Your task to perform on an android device: open wifi settings Image 0: 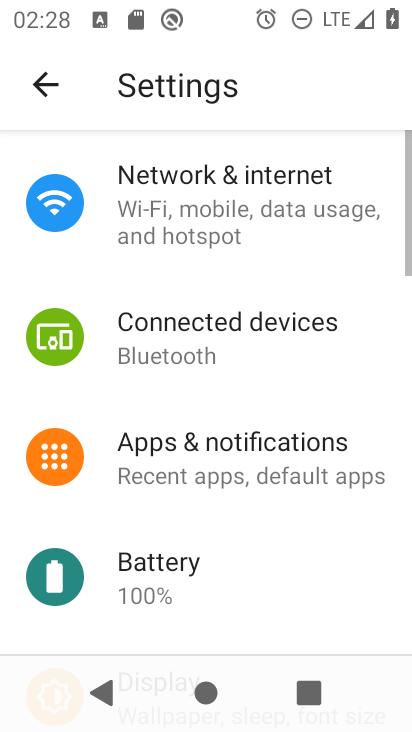
Step 0: click (151, 192)
Your task to perform on an android device: open wifi settings Image 1: 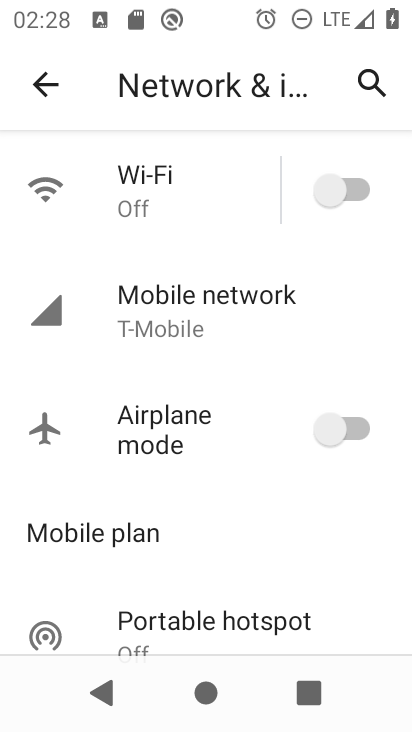
Step 1: click (125, 185)
Your task to perform on an android device: open wifi settings Image 2: 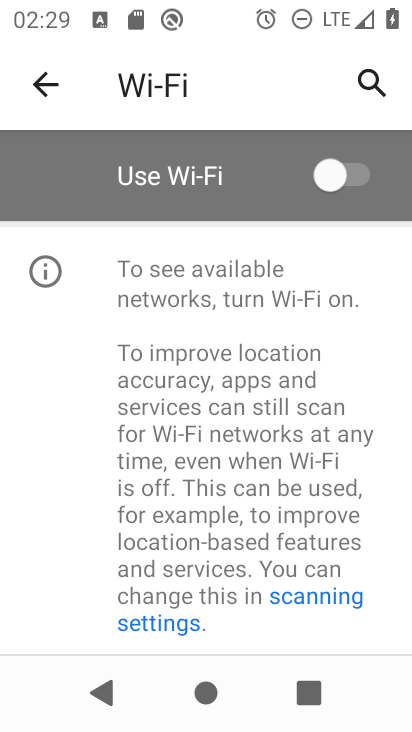
Step 2: click (358, 181)
Your task to perform on an android device: open wifi settings Image 3: 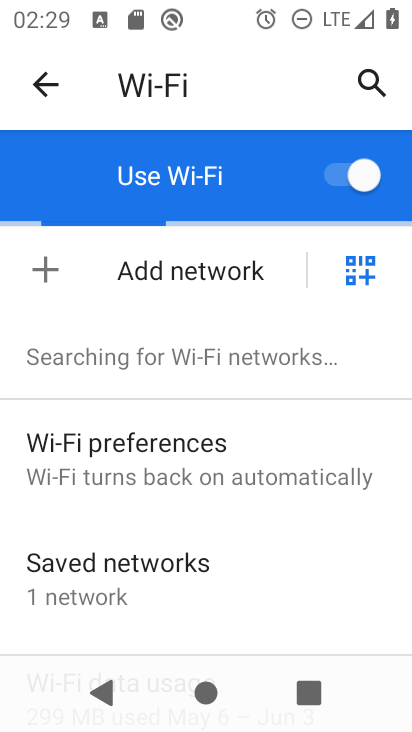
Step 3: task complete